Your task to perform on an android device: Go to Amazon Image 0: 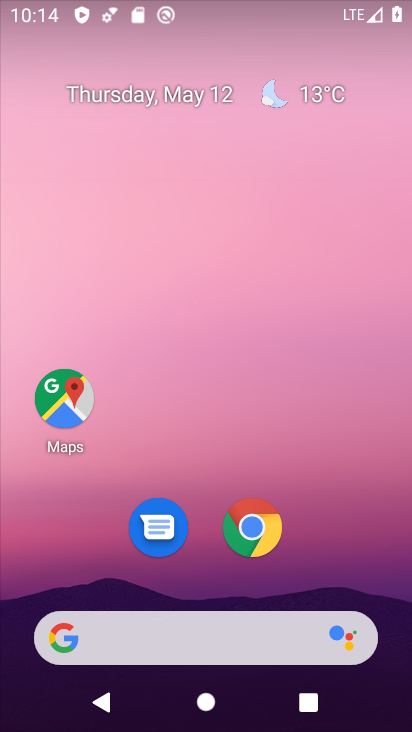
Step 0: click (248, 515)
Your task to perform on an android device: Go to Amazon Image 1: 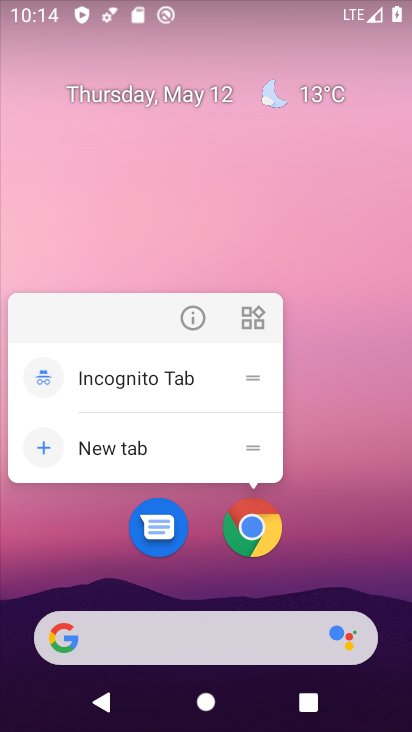
Step 1: click (355, 230)
Your task to perform on an android device: Go to Amazon Image 2: 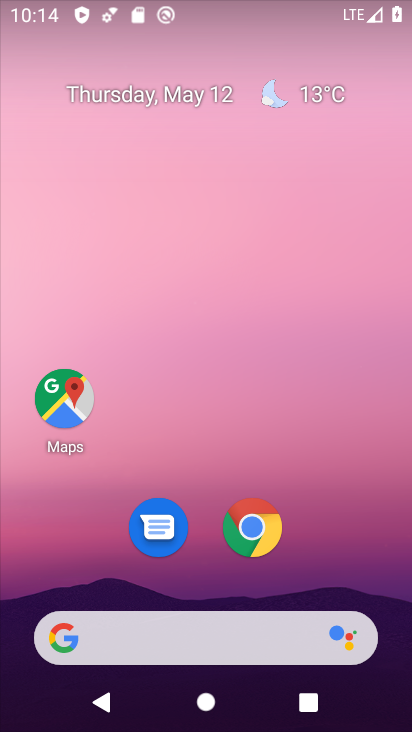
Step 2: drag from (337, 526) to (341, 120)
Your task to perform on an android device: Go to Amazon Image 3: 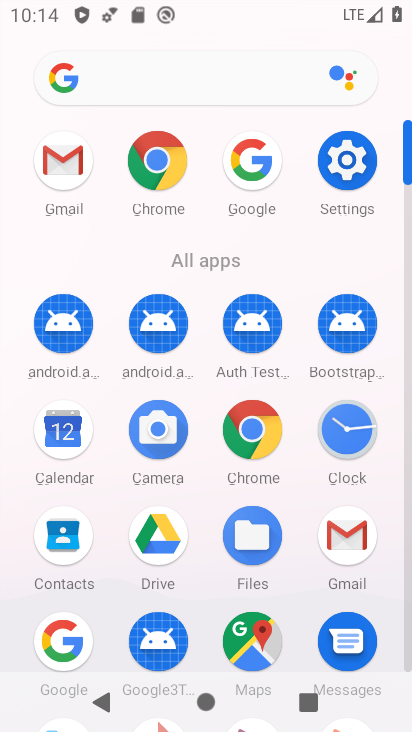
Step 3: drag from (202, 491) to (265, 181)
Your task to perform on an android device: Go to Amazon Image 4: 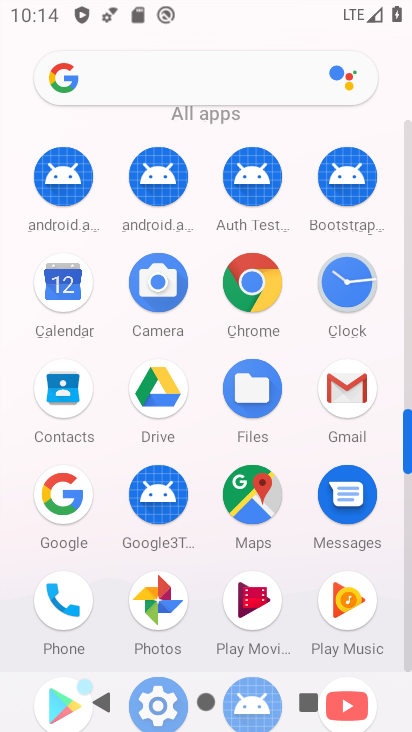
Step 4: click (180, 70)
Your task to perform on an android device: Go to Amazon Image 5: 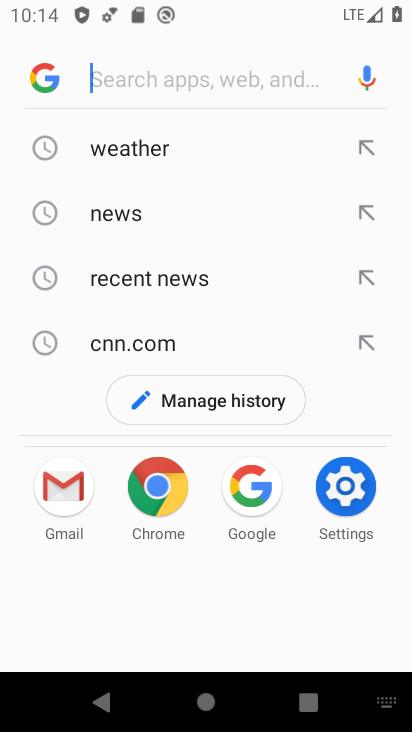
Step 5: type "Amazon"
Your task to perform on an android device: Go to Amazon Image 6: 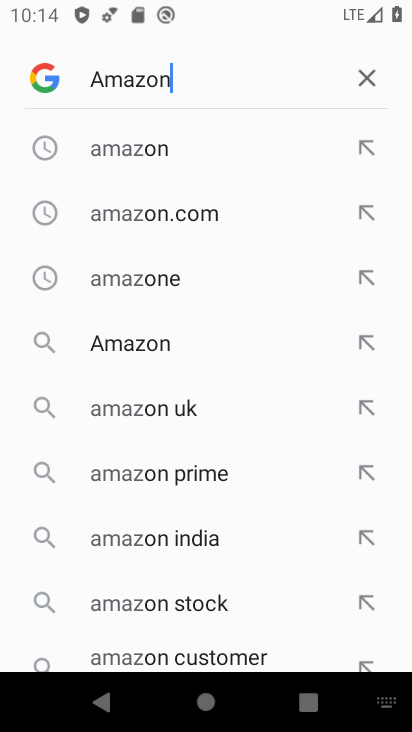
Step 6: type ""
Your task to perform on an android device: Go to Amazon Image 7: 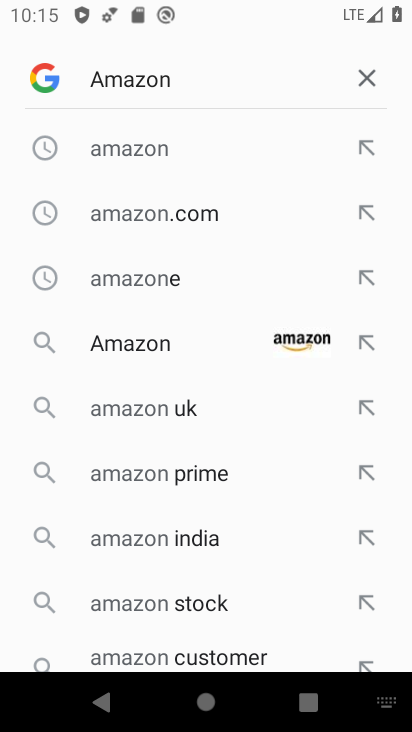
Step 7: click (114, 343)
Your task to perform on an android device: Go to Amazon Image 8: 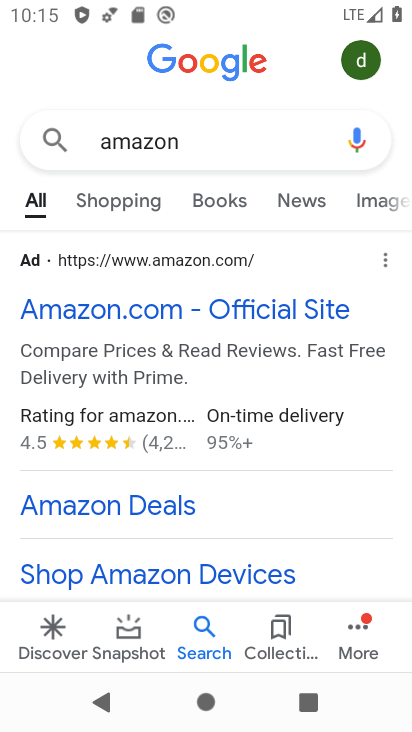
Step 8: click (148, 303)
Your task to perform on an android device: Go to Amazon Image 9: 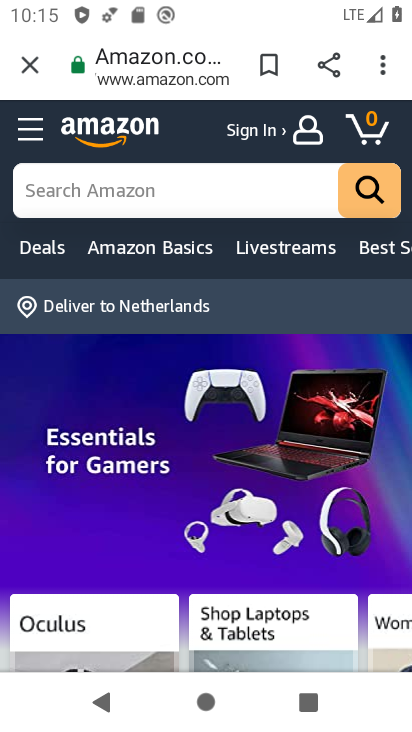
Step 9: task complete